Your task to perform on an android device: open app "Yahoo Mail" Image 0: 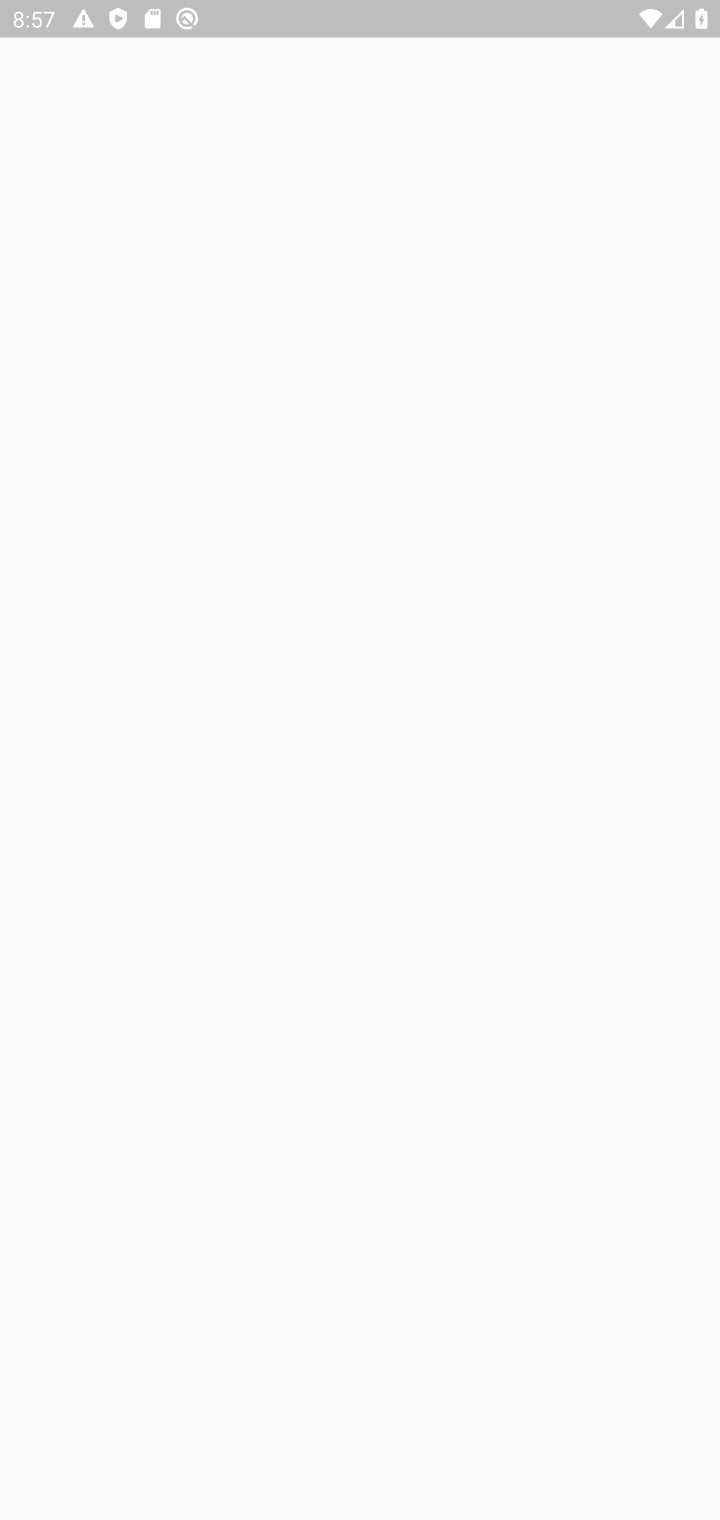
Step 0: press home button
Your task to perform on an android device: open app "Yahoo Mail" Image 1: 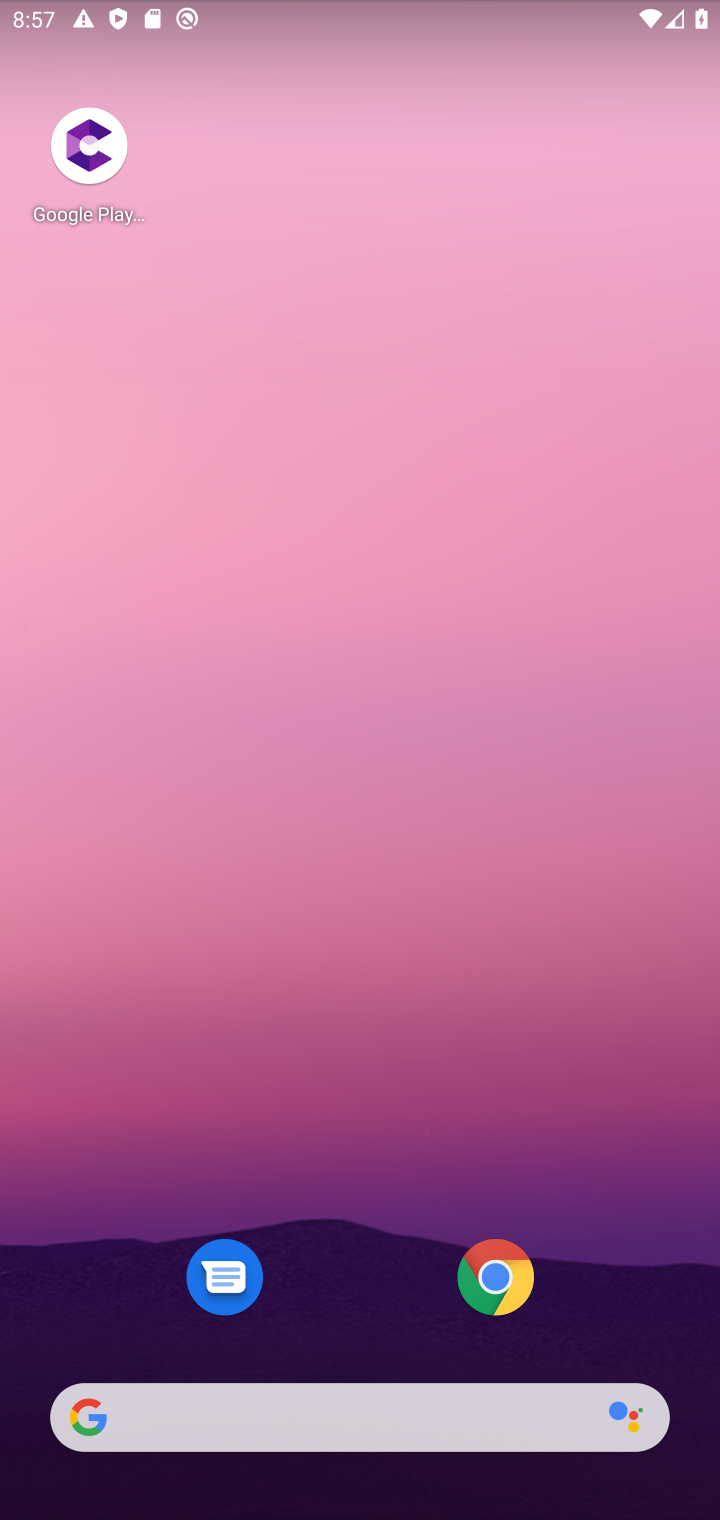
Step 1: drag from (376, 1501) to (366, 583)
Your task to perform on an android device: open app "Yahoo Mail" Image 2: 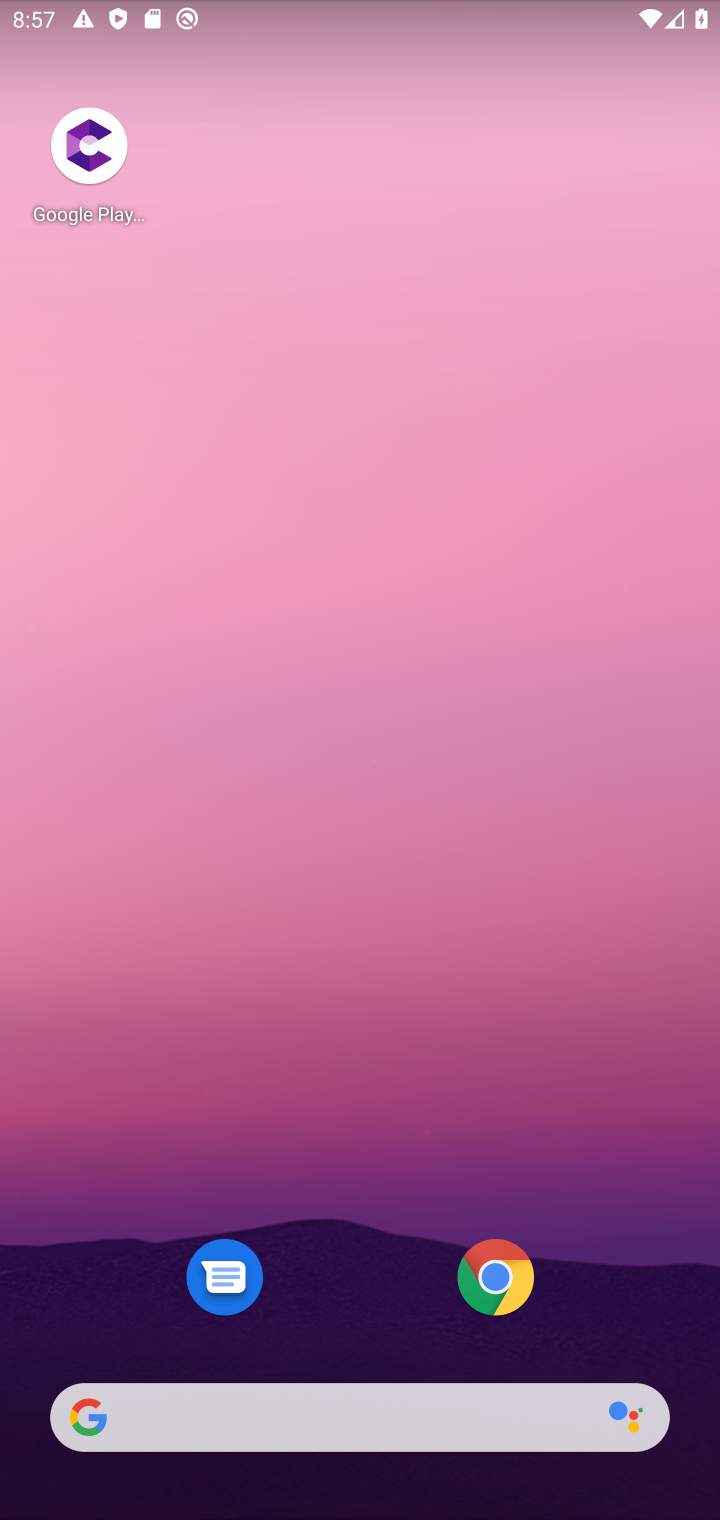
Step 2: drag from (359, 1426) to (364, 584)
Your task to perform on an android device: open app "Yahoo Mail" Image 3: 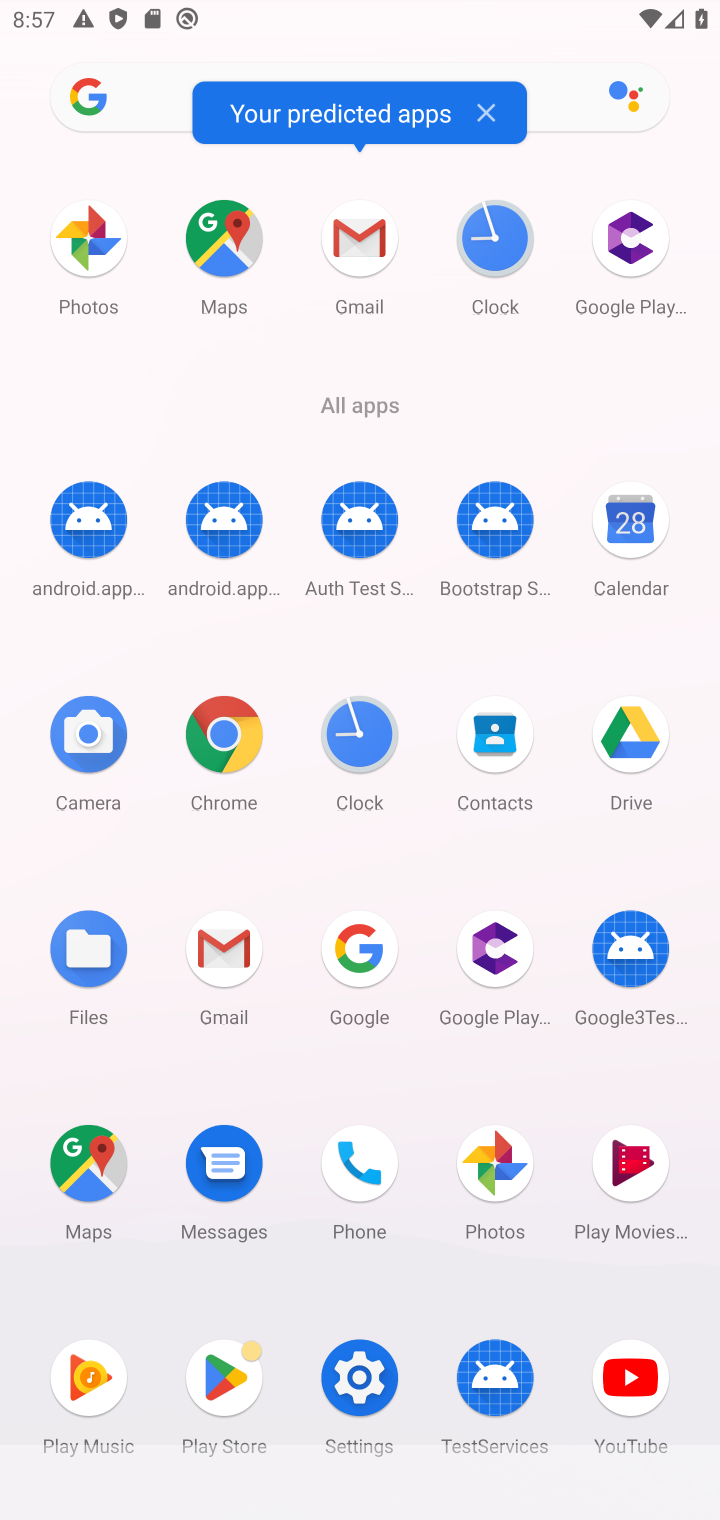
Step 3: click (229, 1367)
Your task to perform on an android device: open app "Yahoo Mail" Image 4: 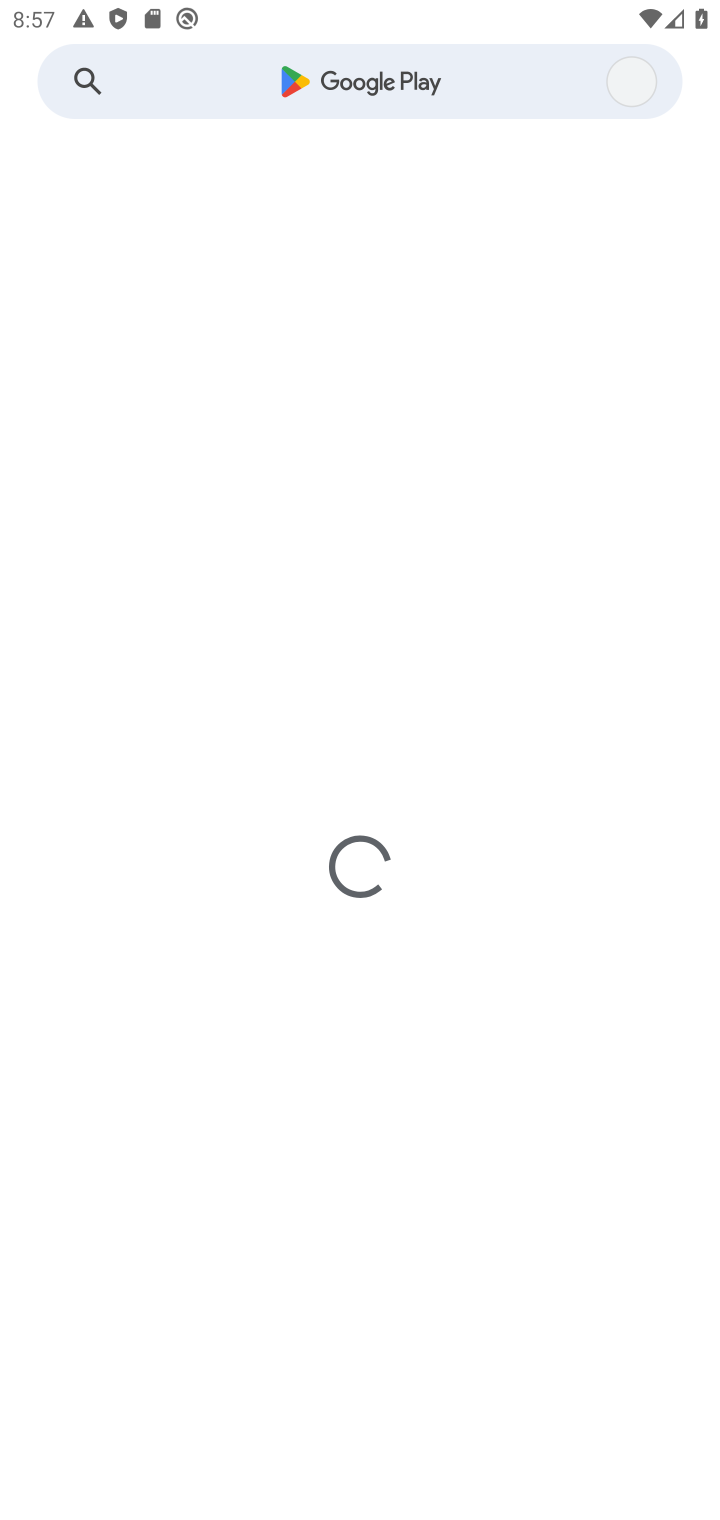
Step 4: click (394, 86)
Your task to perform on an android device: open app "Yahoo Mail" Image 5: 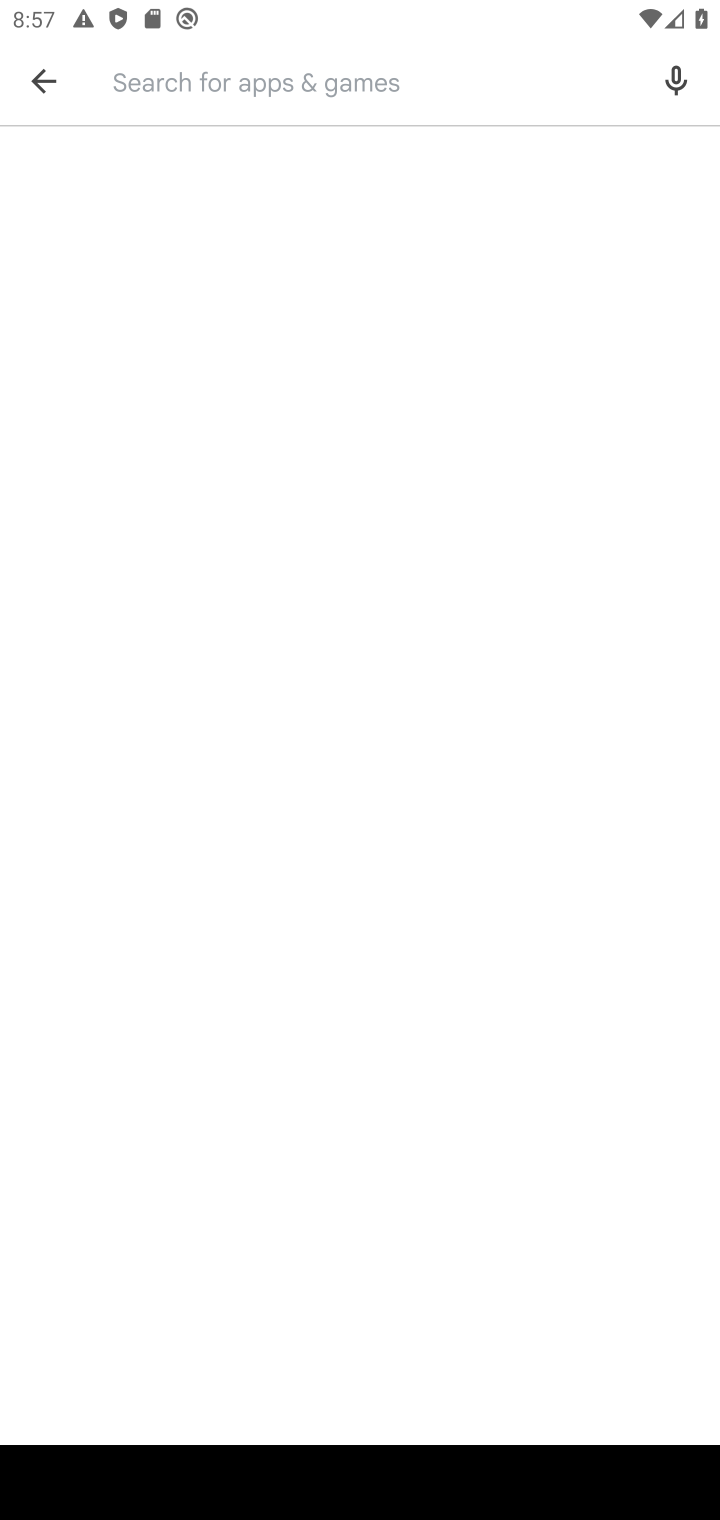
Step 5: type "yahoo Mail"
Your task to perform on an android device: open app "Yahoo Mail" Image 6: 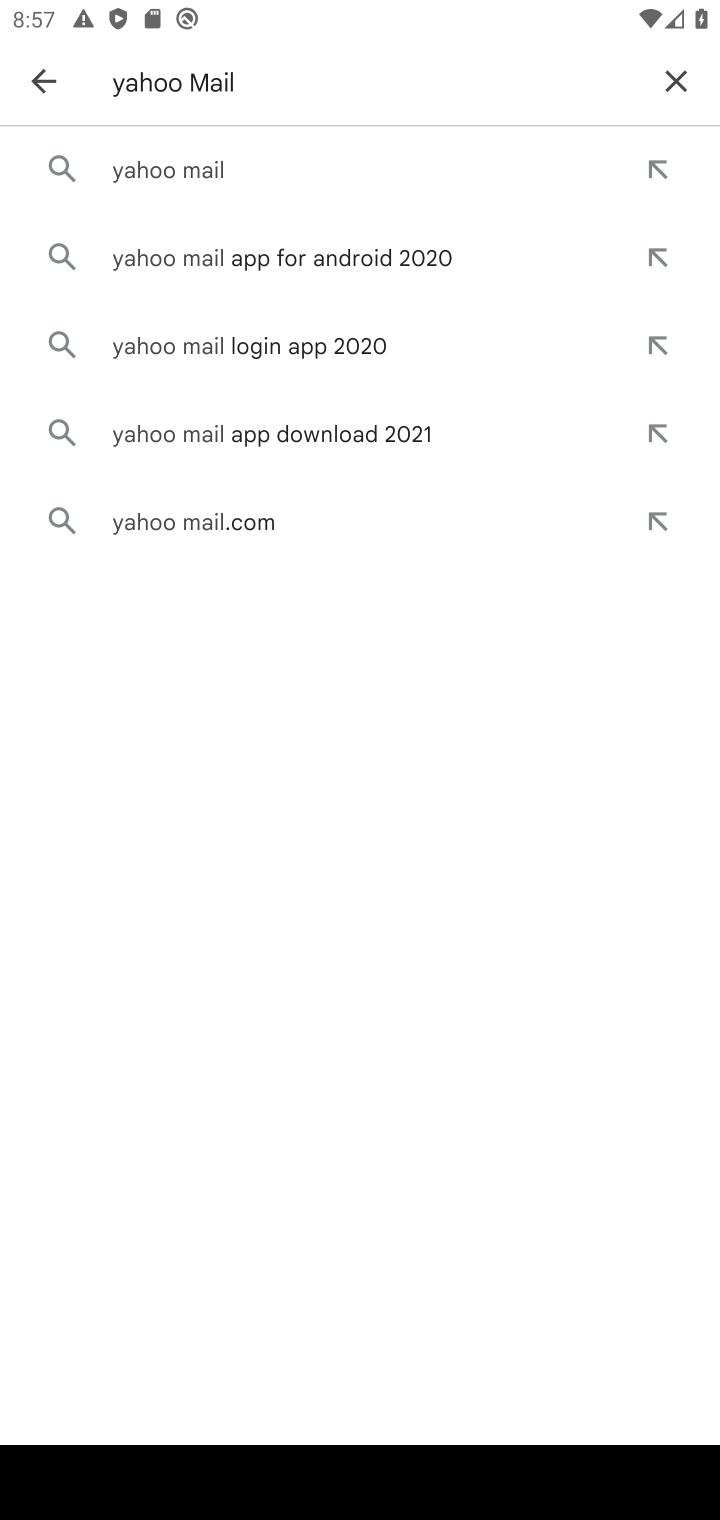
Step 6: click (122, 161)
Your task to perform on an android device: open app "Yahoo Mail" Image 7: 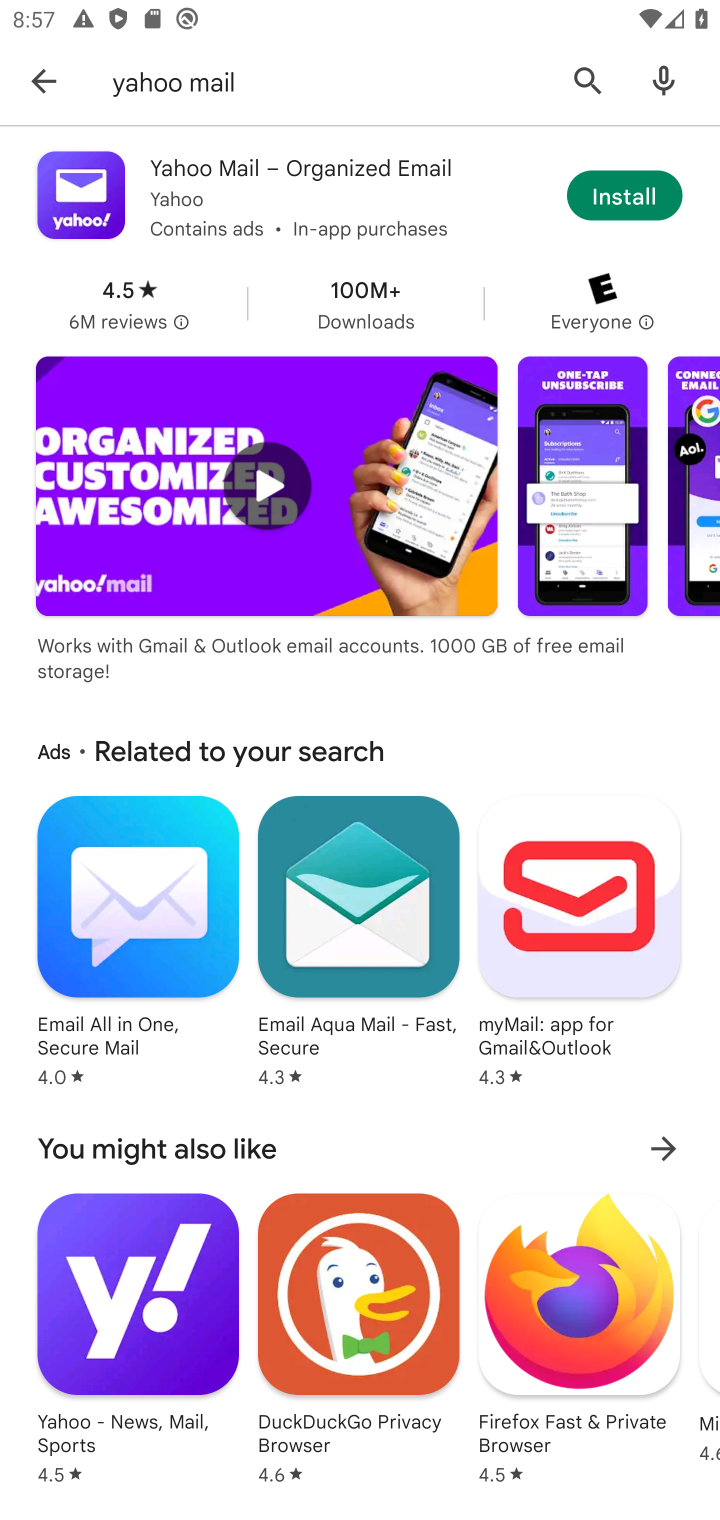
Step 7: task complete